Your task to perform on an android device: Go to Amazon Image 0: 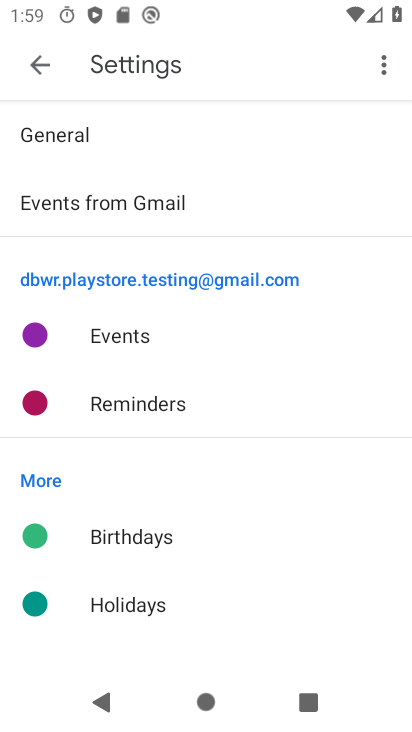
Step 0: press back button
Your task to perform on an android device: Go to Amazon Image 1: 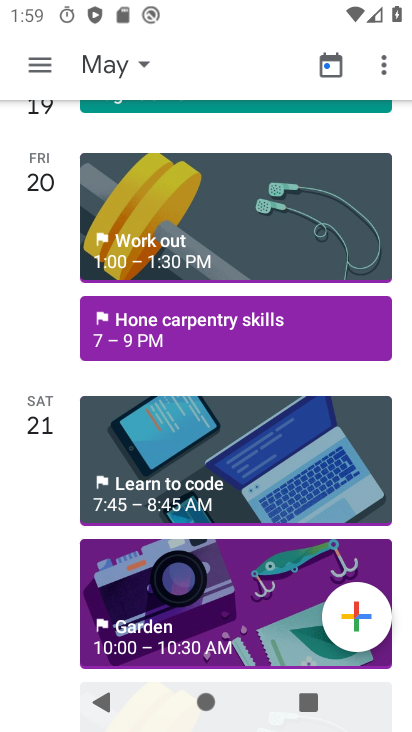
Step 1: press back button
Your task to perform on an android device: Go to Amazon Image 2: 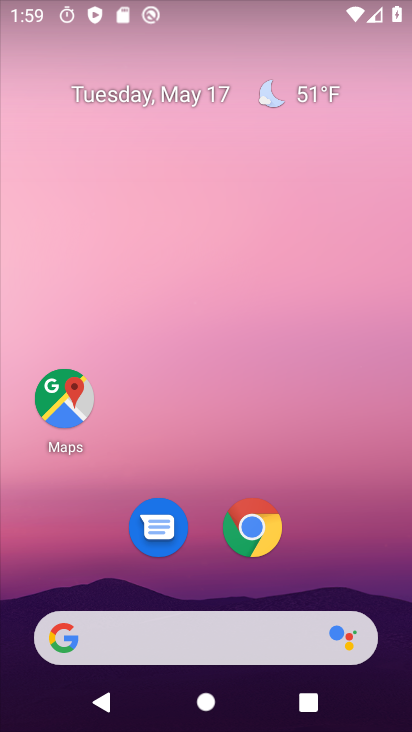
Step 2: click (253, 529)
Your task to perform on an android device: Go to Amazon Image 3: 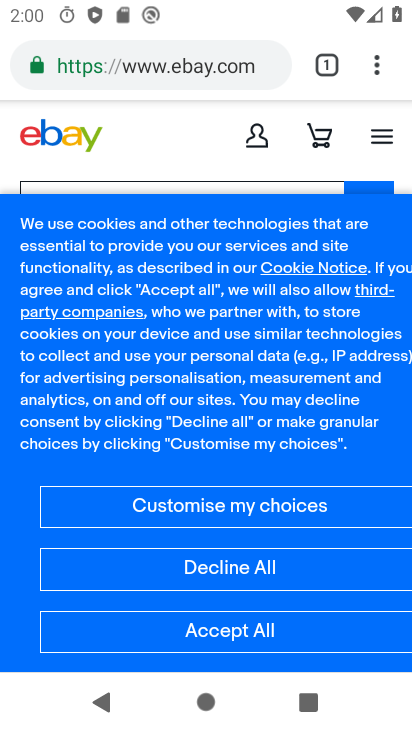
Step 3: click (249, 62)
Your task to perform on an android device: Go to Amazon Image 4: 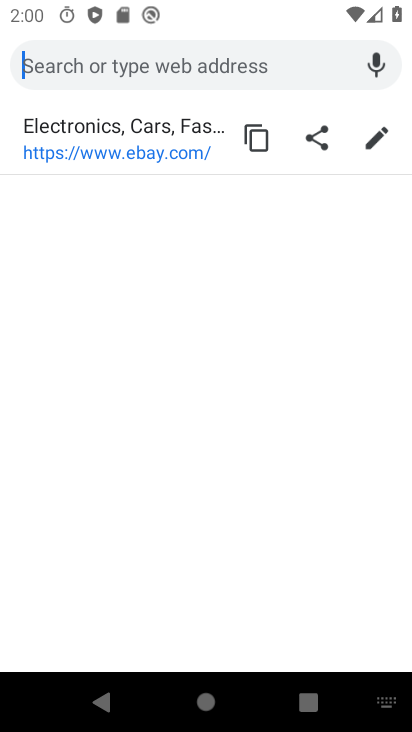
Step 4: type "Amazon"
Your task to perform on an android device: Go to Amazon Image 5: 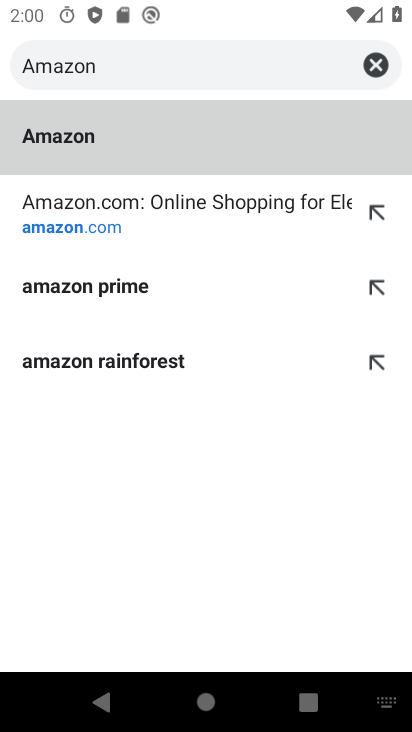
Step 5: click (62, 131)
Your task to perform on an android device: Go to Amazon Image 6: 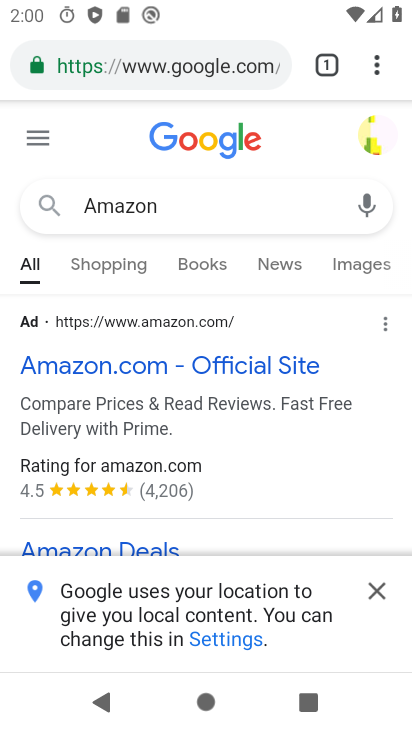
Step 6: click (162, 354)
Your task to perform on an android device: Go to Amazon Image 7: 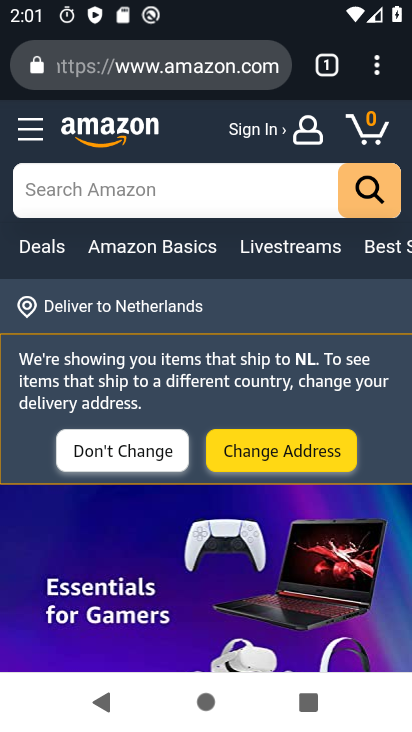
Step 7: task complete